Your task to perform on an android device: Search for dell xps on bestbuy, select the first entry, add it to the cart, then select checkout. Image 0: 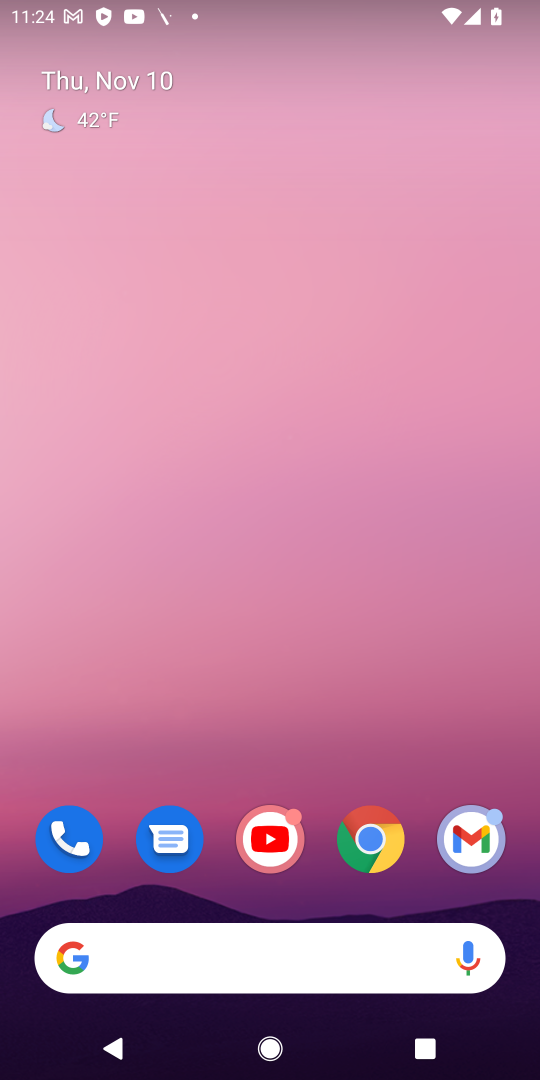
Step 0: click (383, 836)
Your task to perform on an android device: Search for dell xps on bestbuy, select the first entry, add it to the cart, then select checkout. Image 1: 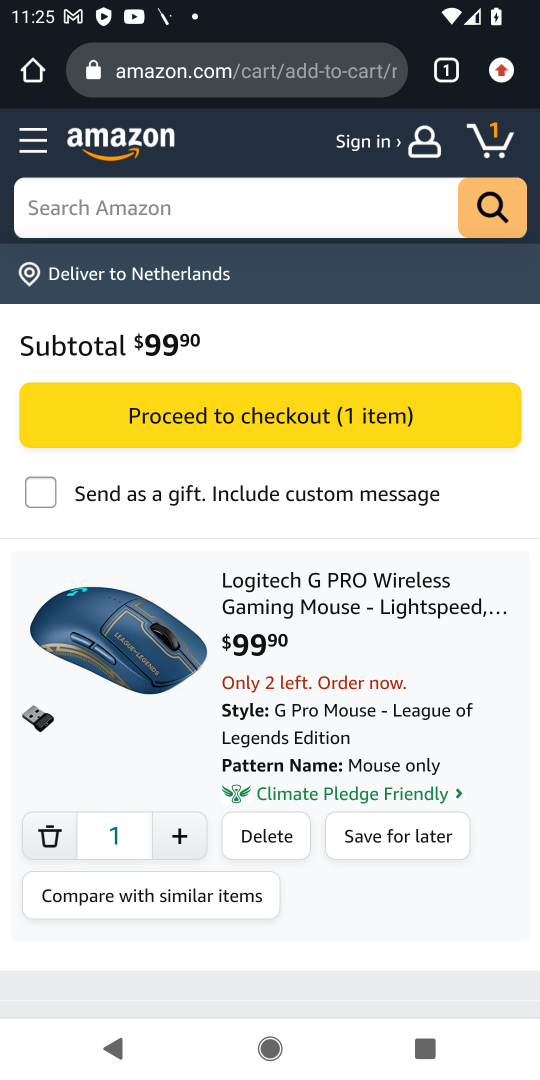
Step 1: click (292, 77)
Your task to perform on an android device: Search for dell xps on bestbuy, select the first entry, add it to the cart, then select checkout. Image 2: 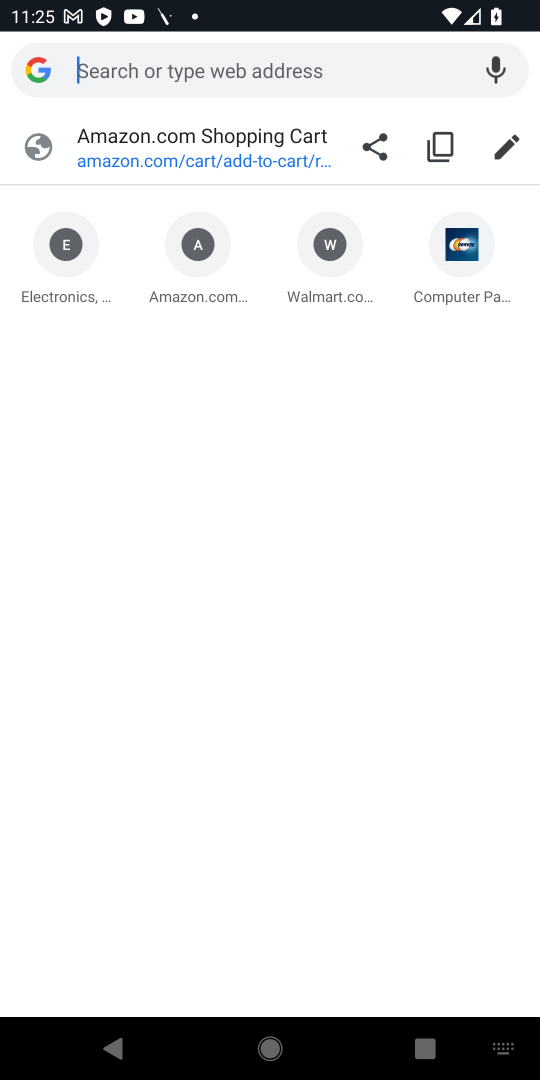
Step 2: type "bestbuy"
Your task to perform on an android device: Search for dell xps on bestbuy, select the first entry, add it to the cart, then select checkout. Image 3: 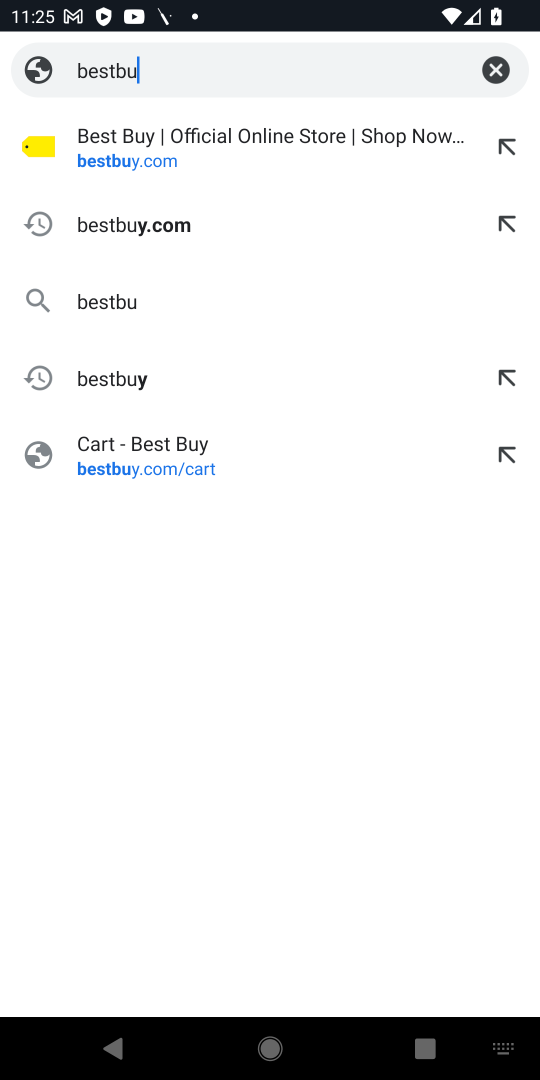
Step 3: press enter
Your task to perform on an android device: Search for dell xps on bestbuy, select the first entry, add it to the cart, then select checkout. Image 4: 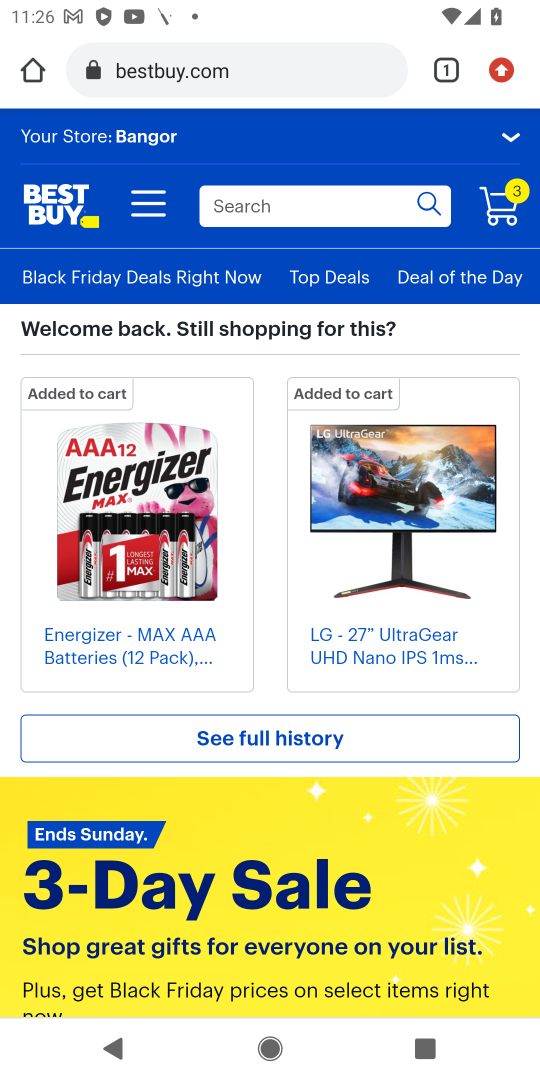
Step 4: click (277, 205)
Your task to perform on an android device: Search for dell xps on bestbuy, select the first entry, add it to the cart, then select checkout. Image 5: 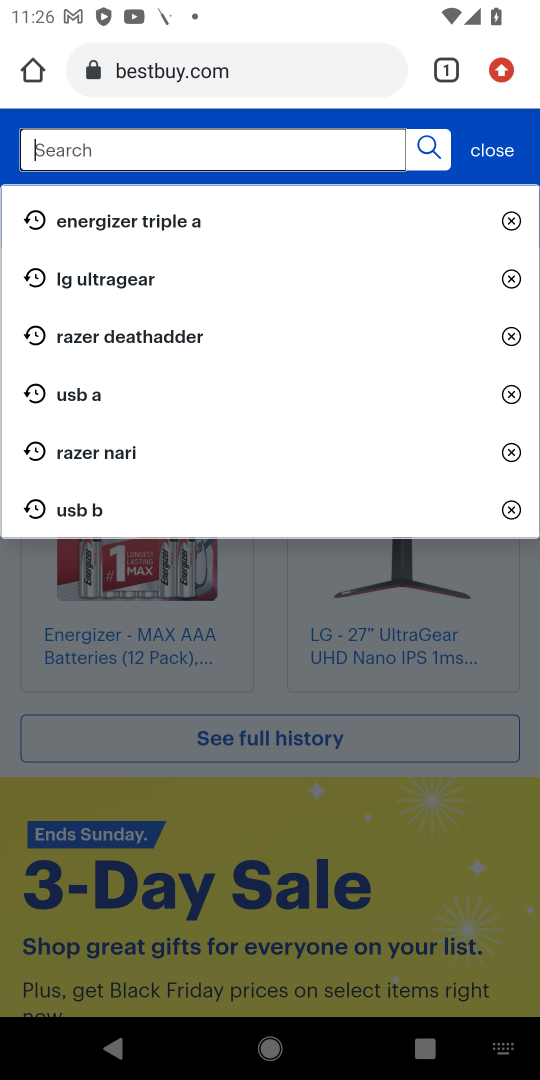
Step 5: type "dell xps"
Your task to perform on an android device: Search for dell xps on bestbuy, select the first entry, add it to the cart, then select checkout. Image 6: 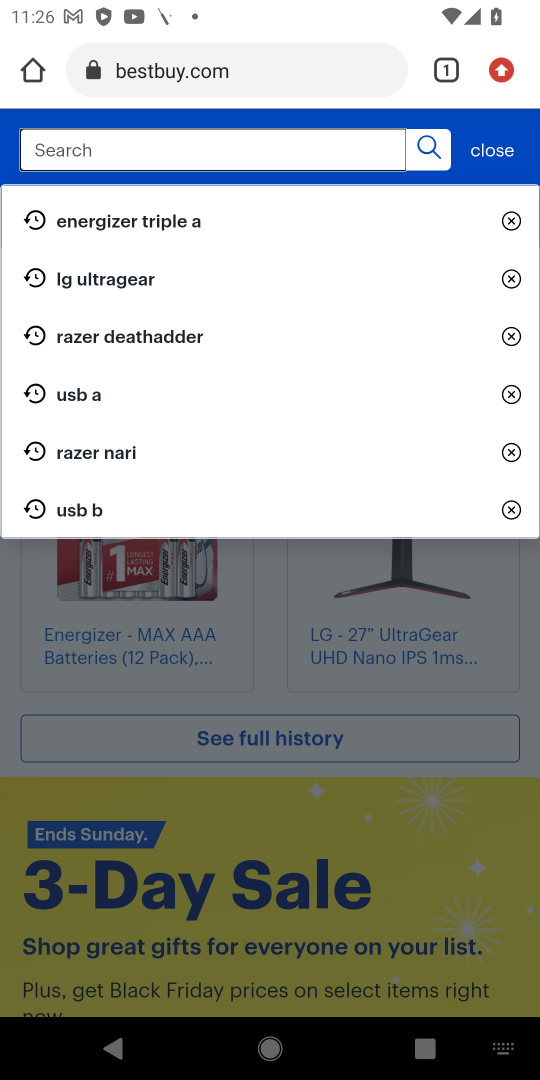
Step 6: press enter
Your task to perform on an android device: Search for dell xps on bestbuy, select the first entry, add it to the cart, then select checkout. Image 7: 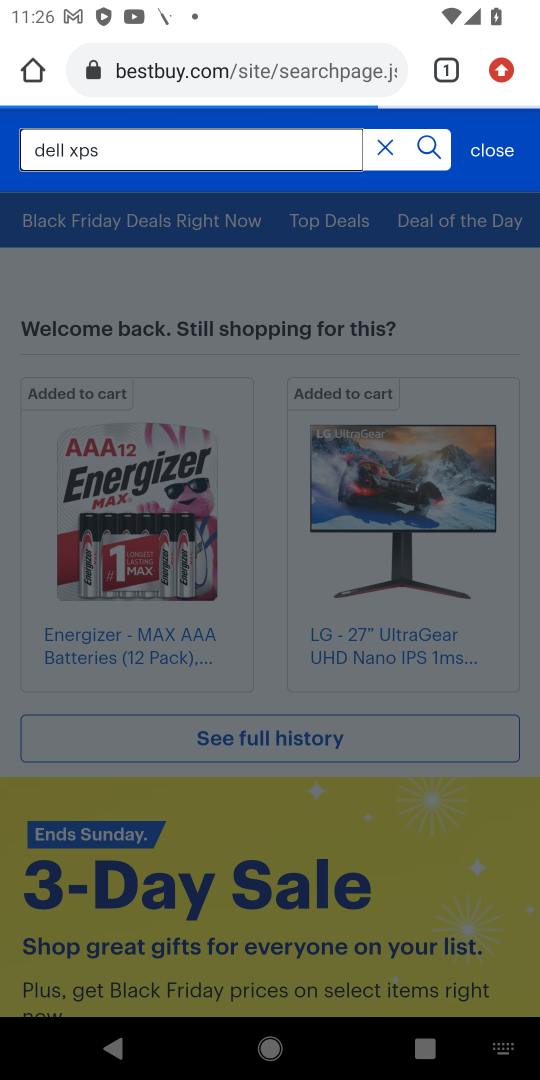
Step 7: click (430, 140)
Your task to perform on an android device: Search for dell xps on bestbuy, select the first entry, add it to the cart, then select checkout. Image 8: 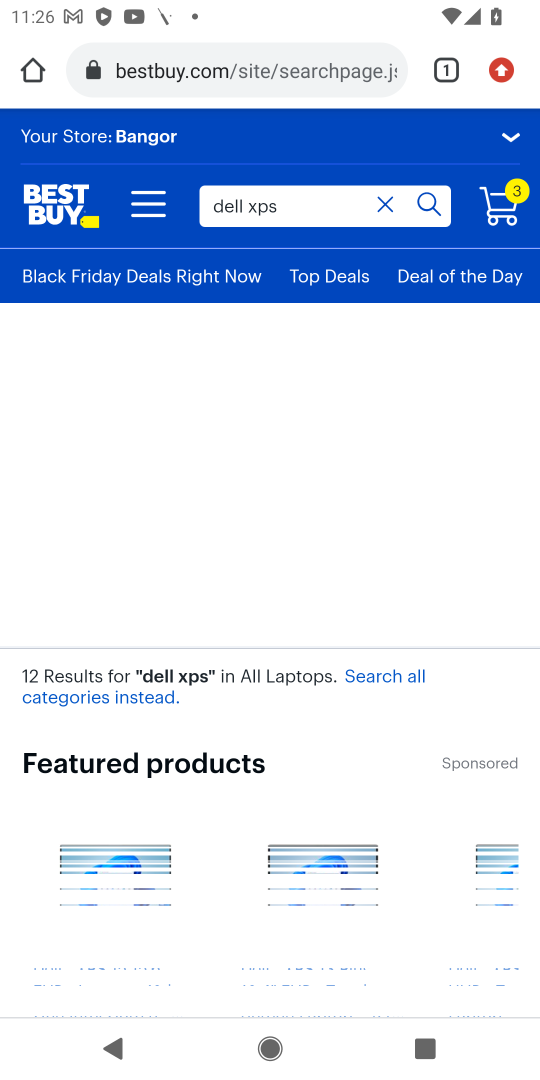
Step 8: drag from (335, 777) to (308, 326)
Your task to perform on an android device: Search for dell xps on bestbuy, select the first entry, add it to the cart, then select checkout. Image 9: 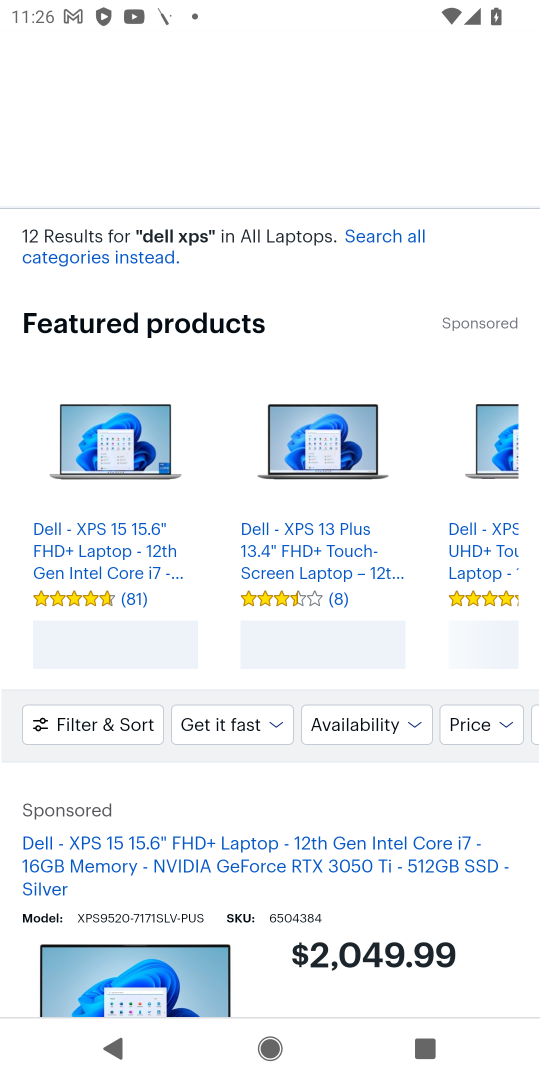
Step 9: click (102, 439)
Your task to perform on an android device: Search for dell xps on bestbuy, select the first entry, add it to the cart, then select checkout. Image 10: 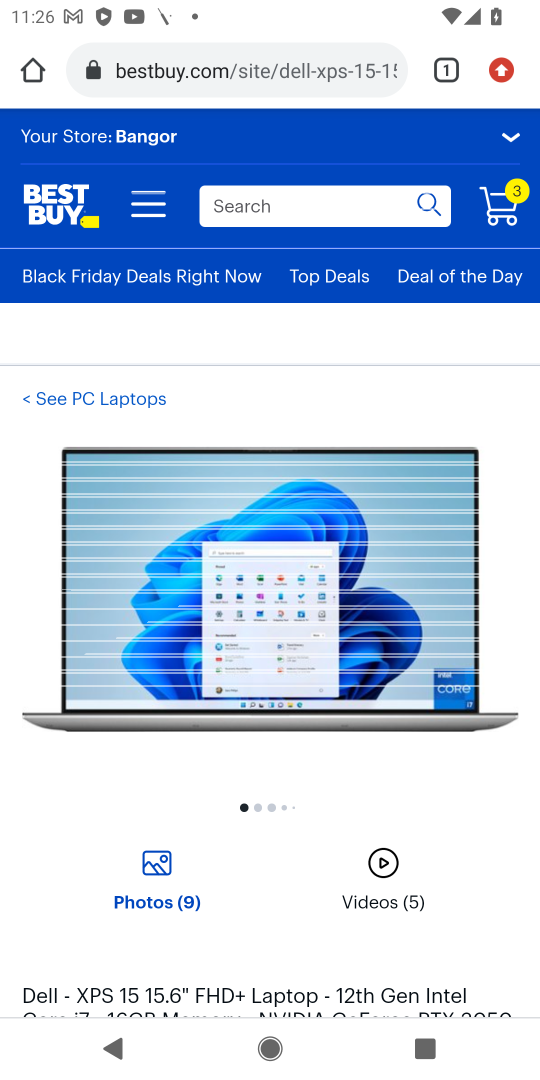
Step 10: drag from (405, 740) to (482, 261)
Your task to perform on an android device: Search for dell xps on bestbuy, select the first entry, add it to the cart, then select checkout. Image 11: 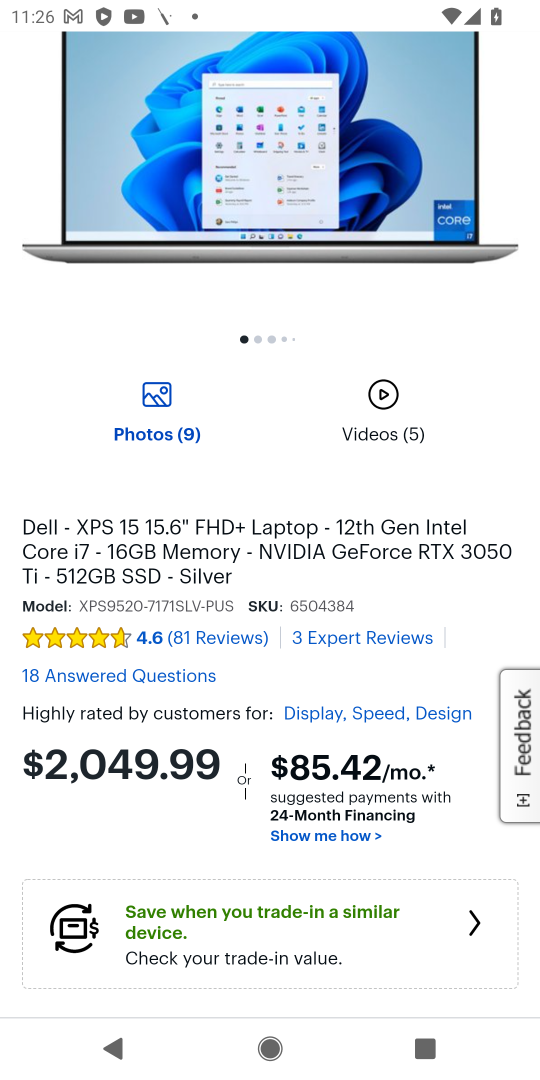
Step 11: drag from (303, 661) to (254, 172)
Your task to perform on an android device: Search for dell xps on bestbuy, select the first entry, add it to the cart, then select checkout. Image 12: 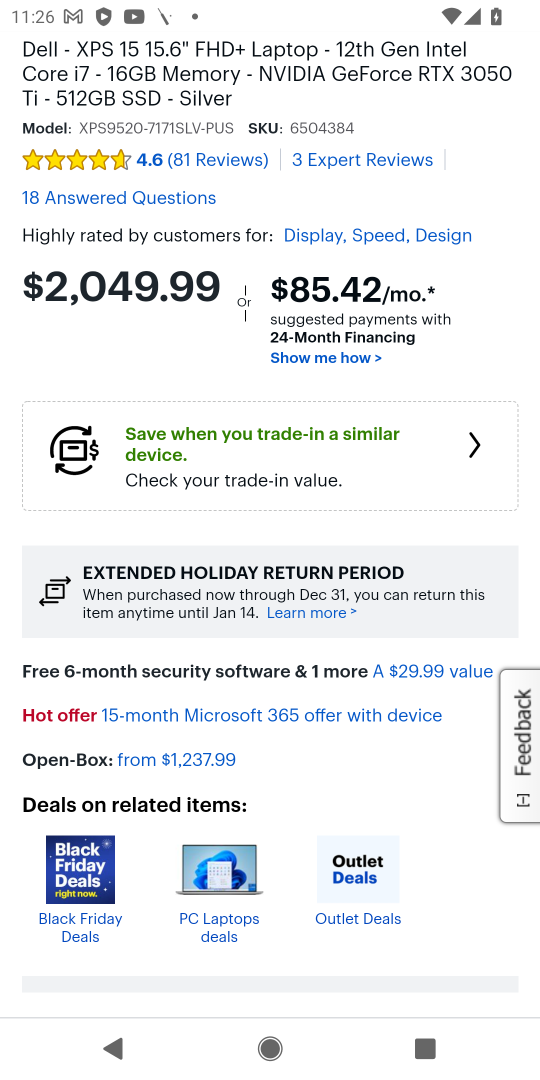
Step 12: drag from (450, 840) to (401, 399)
Your task to perform on an android device: Search for dell xps on bestbuy, select the first entry, add it to the cart, then select checkout. Image 13: 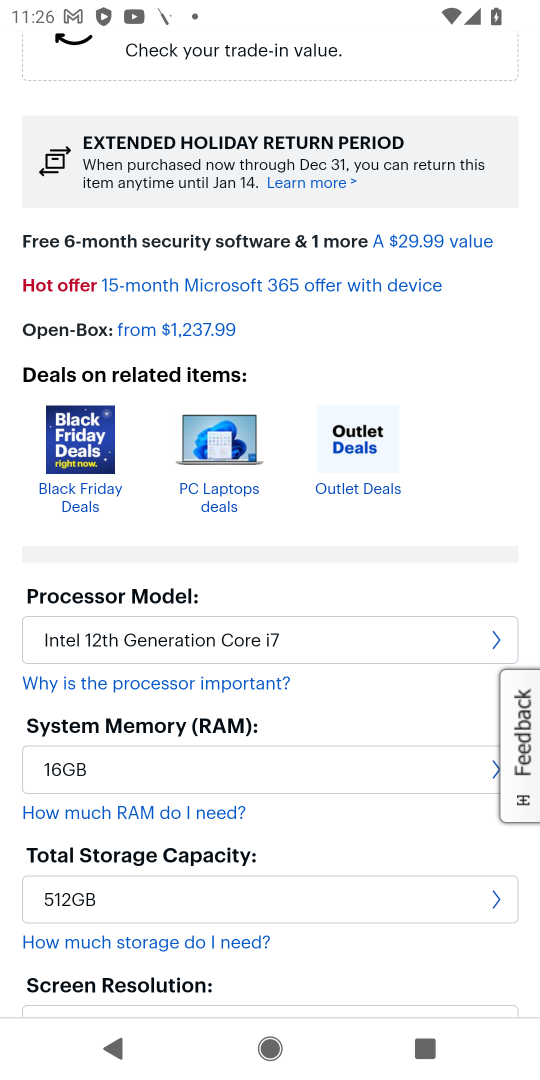
Step 13: drag from (397, 788) to (417, 255)
Your task to perform on an android device: Search for dell xps on bestbuy, select the first entry, add it to the cart, then select checkout. Image 14: 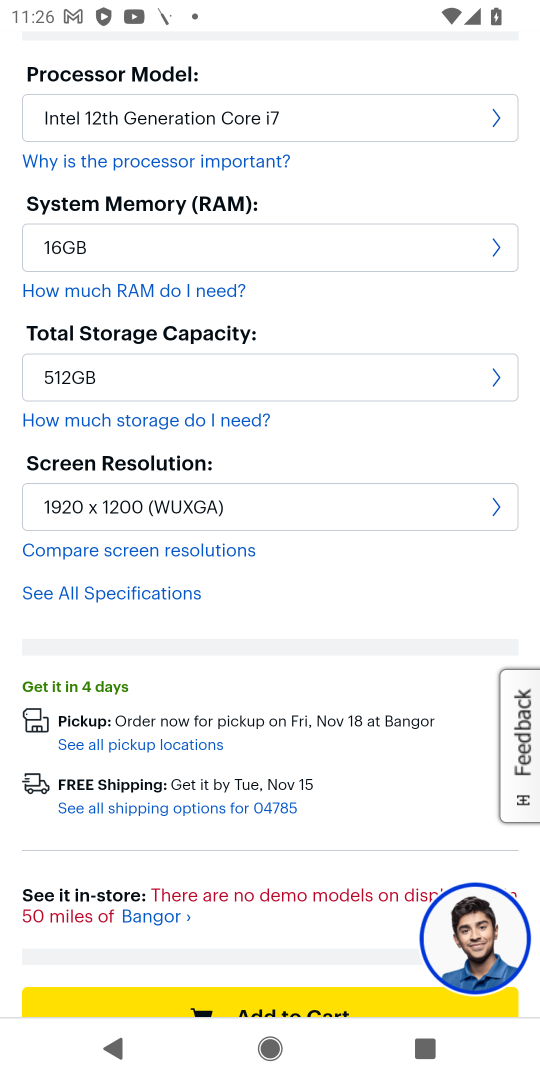
Step 14: drag from (360, 652) to (368, 136)
Your task to perform on an android device: Search for dell xps on bestbuy, select the first entry, add it to the cart, then select checkout. Image 15: 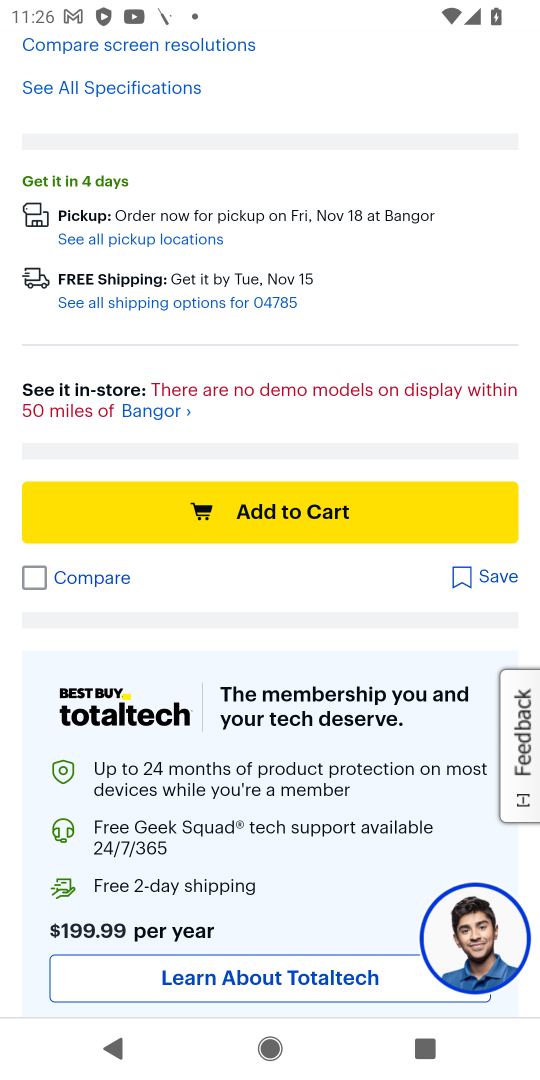
Step 15: click (295, 508)
Your task to perform on an android device: Search for dell xps on bestbuy, select the first entry, add it to the cart, then select checkout. Image 16: 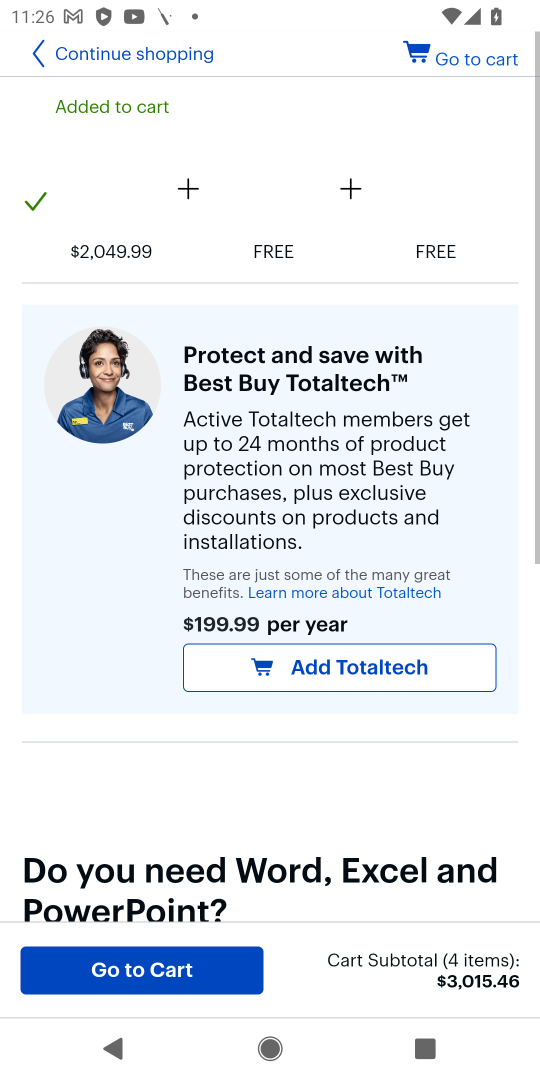
Step 16: click (160, 961)
Your task to perform on an android device: Search for dell xps on bestbuy, select the first entry, add it to the cart, then select checkout. Image 17: 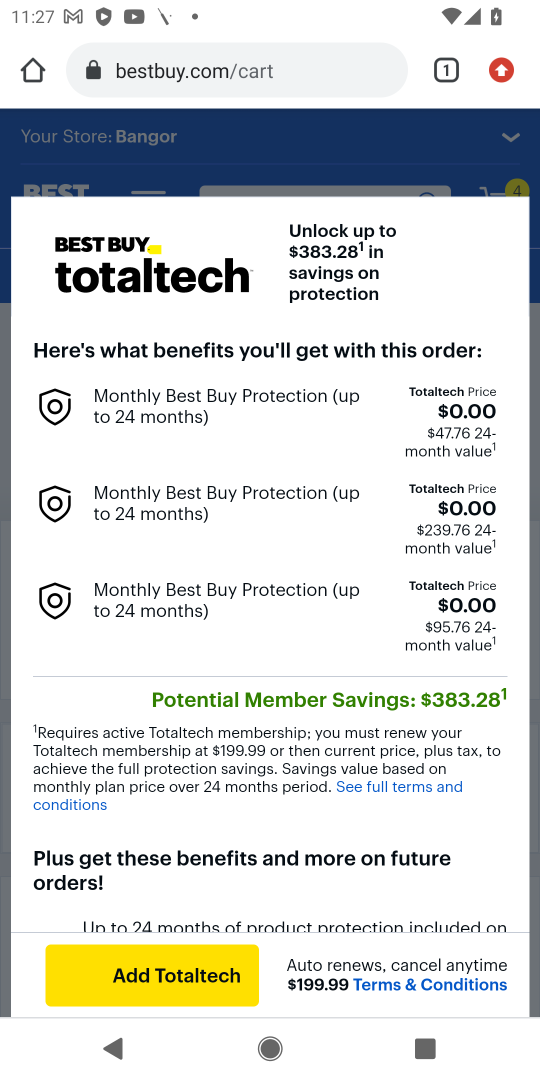
Step 17: click (255, 637)
Your task to perform on an android device: Search for dell xps on bestbuy, select the first entry, add it to the cart, then select checkout. Image 18: 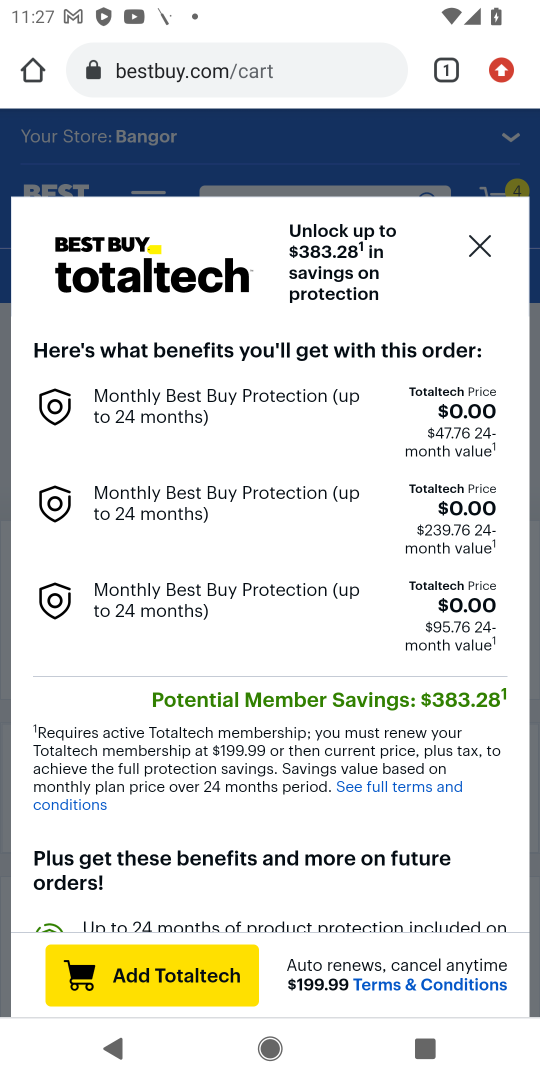
Step 18: click (486, 238)
Your task to perform on an android device: Search for dell xps on bestbuy, select the first entry, add it to the cart, then select checkout. Image 19: 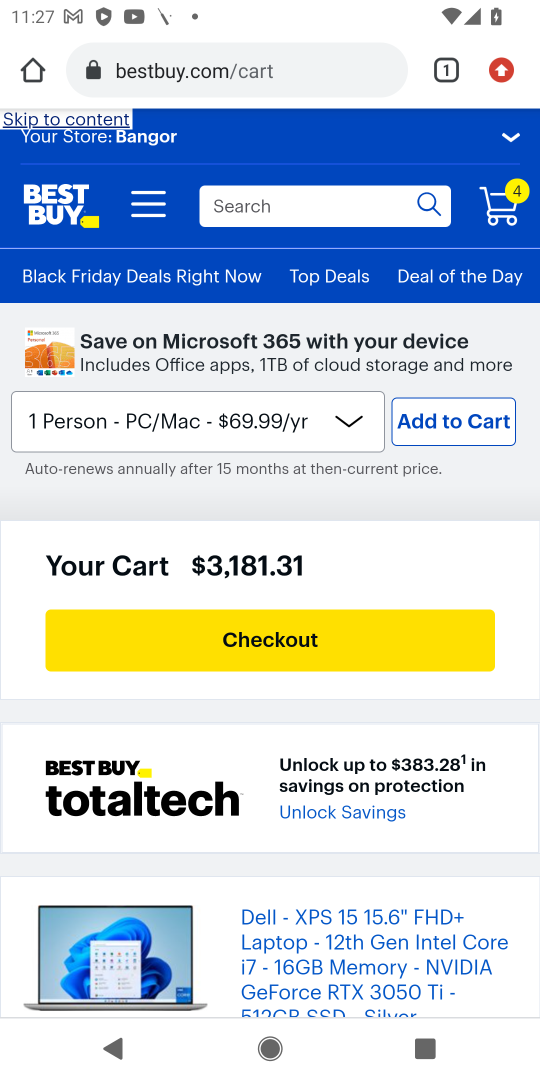
Step 19: click (272, 638)
Your task to perform on an android device: Search for dell xps on bestbuy, select the first entry, add it to the cart, then select checkout. Image 20: 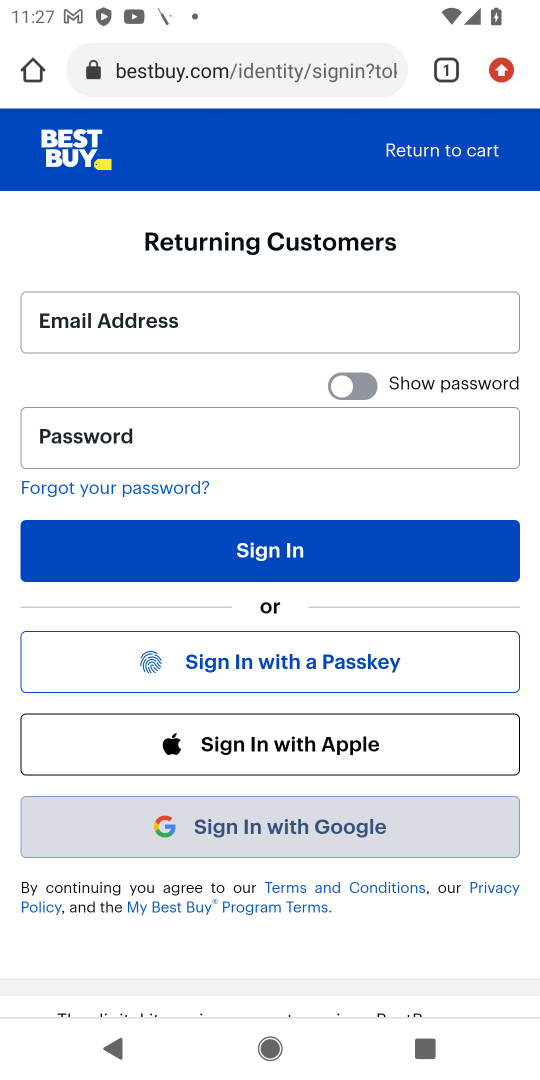
Step 20: task complete